Your task to perform on an android device: Open ESPN.com Image 0: 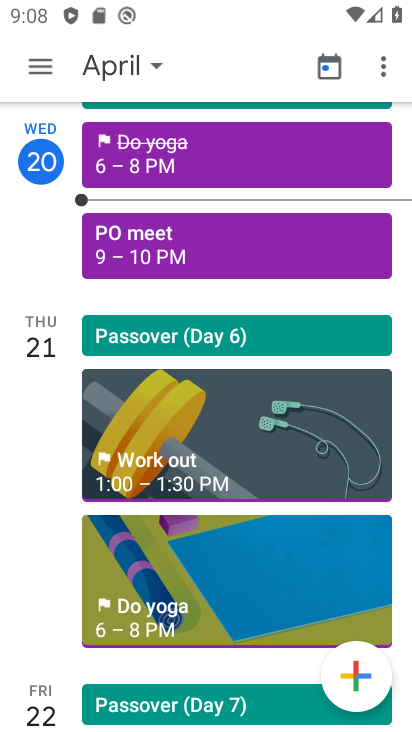
Step 0: press home button
Your task to perform on an android device: Open ESPN.com Image 1: 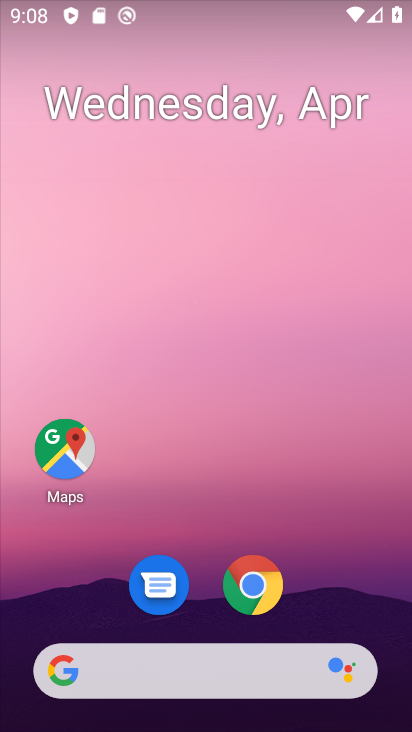
Step 1: click (195, 675)
Your task to perform on an android device: Open ESPN.com Image 2: 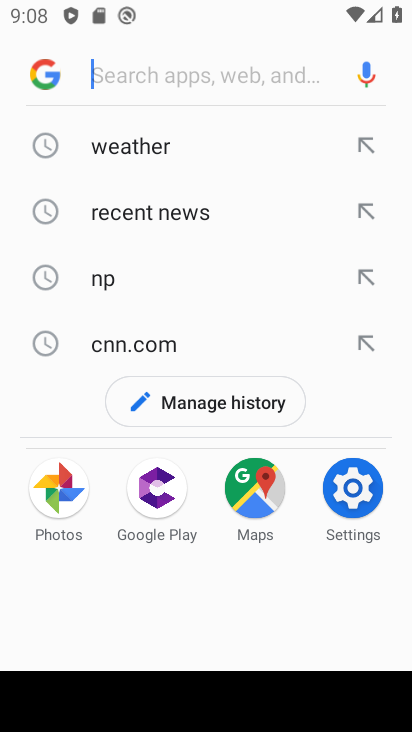
Step 2: type "espn.com"
Your task to perform on an android device: Open ESPN.com Image 3: 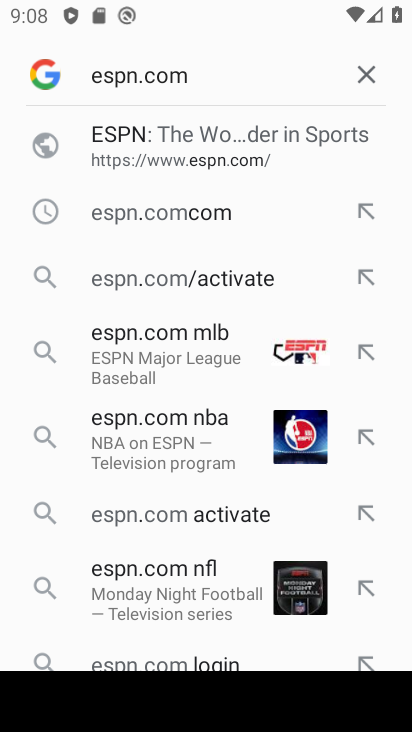
Step 3: click (200, 151)
Your task to perform on an android device: Open ESPN.com Image 4: 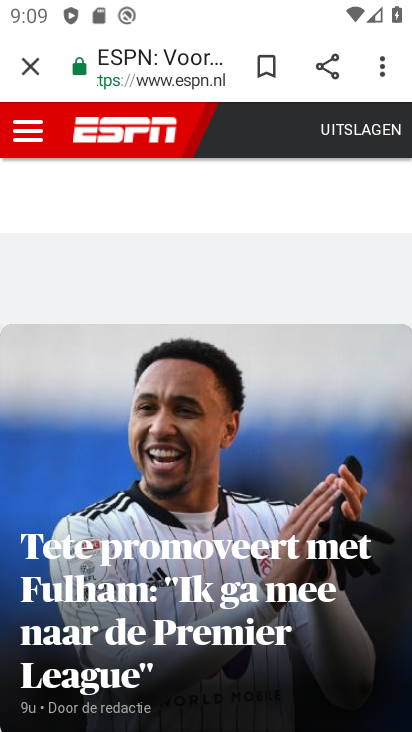
Step 4: task complete